Your task to perform on an android device: Turn on the flashlight Image 0: 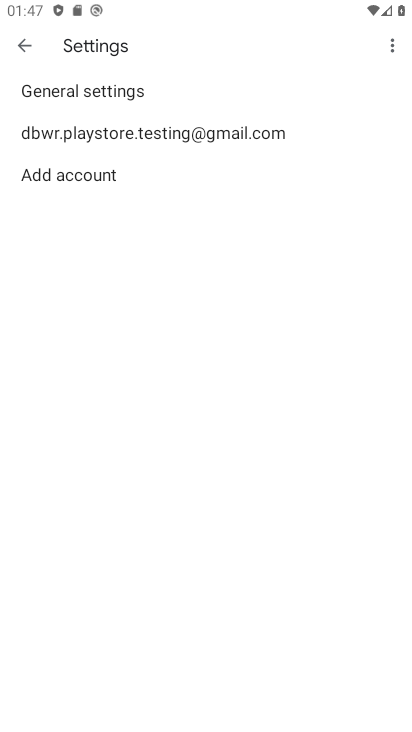
Step 0: press home button
Your task to perform on an android device: Turn on the flashlight Image 1: 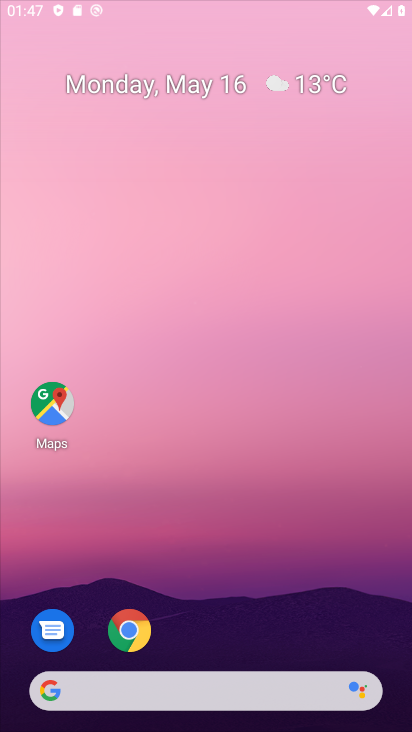
Step 1: drag from (326, 585) to (315, 221)
Your task to perform on an android device: Turn on the flashlight Image 2: 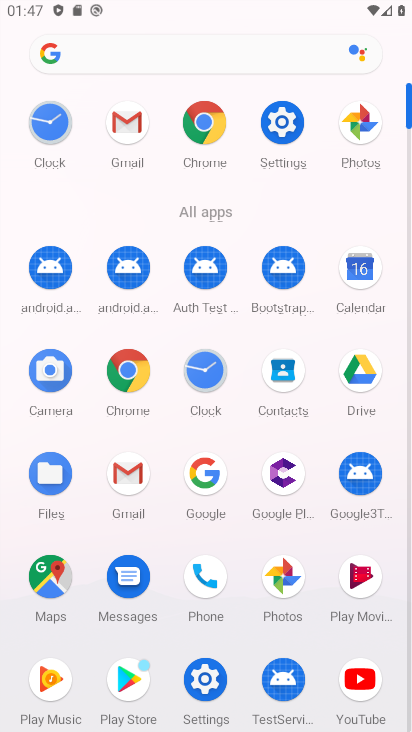
Step 2: click (298, 118)
Your task to perform on an android device: Turn on the flashlight Image 3: 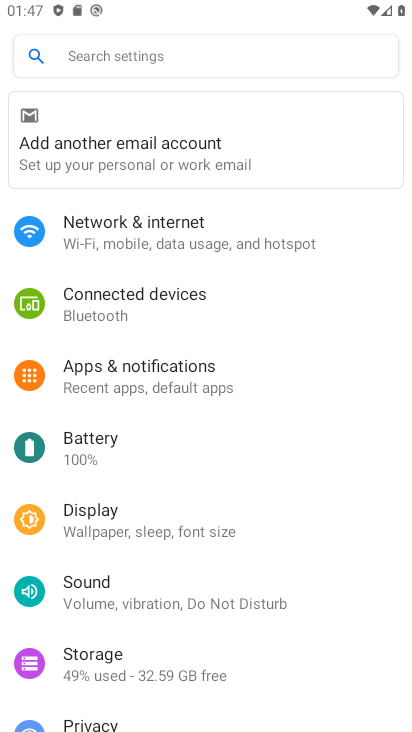
Step 3: click (212, 59)
Your task to perform on an android device: Turn on the flashlight Image 4: 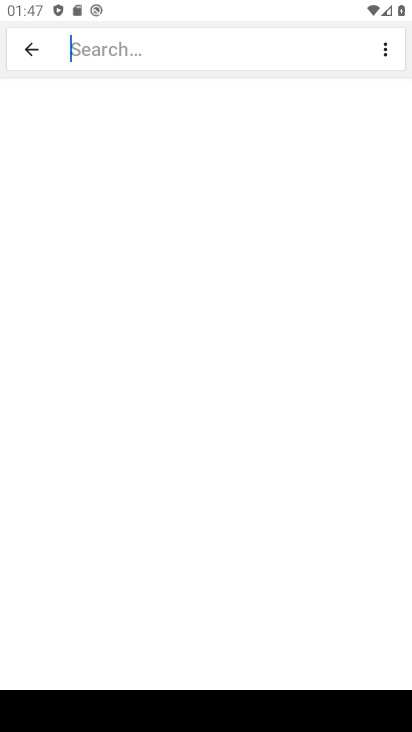
Step 4: type "flashlight"
Your task to perform on an android device: Turn on the flashlight Image 5: 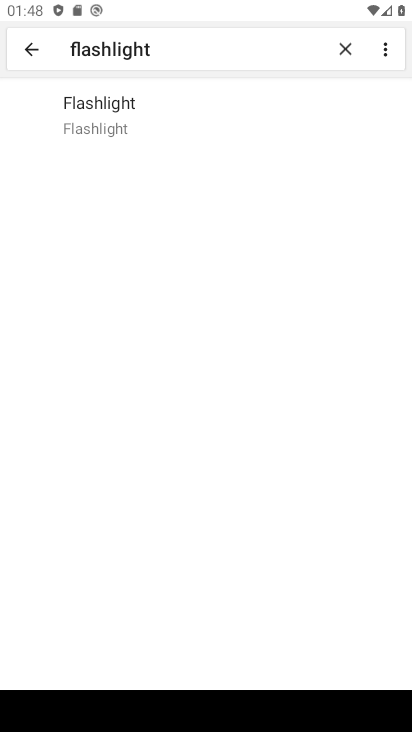
Step 5: click (91, 137)
Your task to perform on an android device: Turn on the flashlight Image 6: 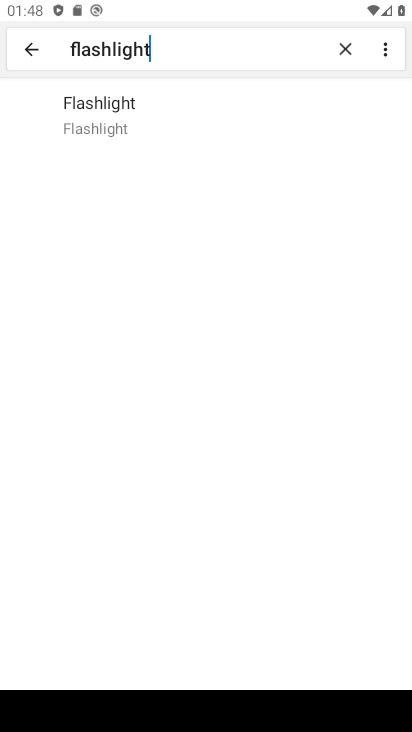
Step 6: task complete